Your task to perform on an android device: turn off data saver in the chrome app Image 0: 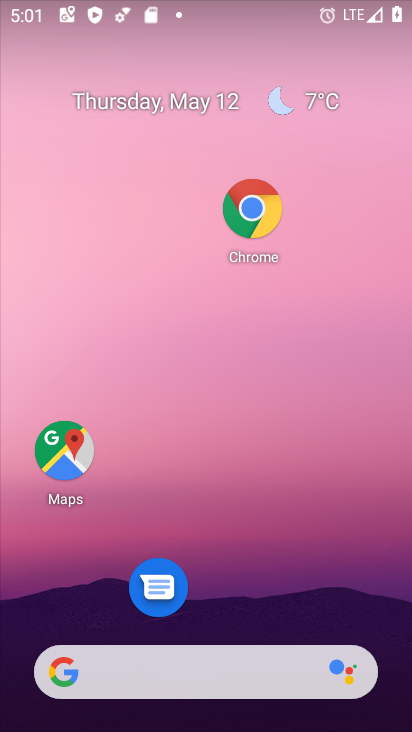
Step 0: click (278, 7)
Your task to perform on an android device: turn off data saver in the chrome app Image 1: 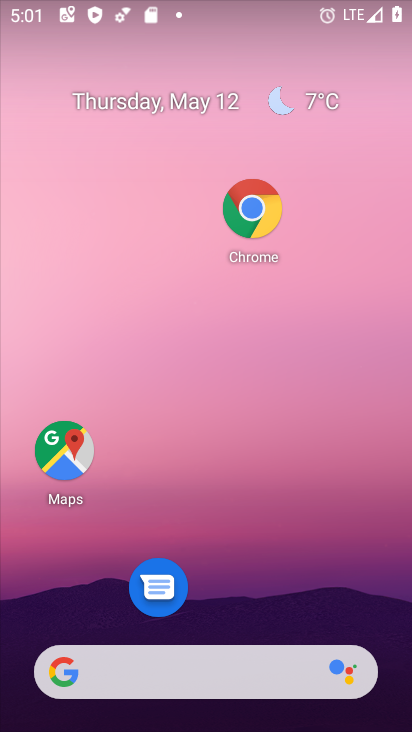
Step 1: click (258, 248)
Your task to perform on an android device: turn off data saver in the chrome app Image 2: 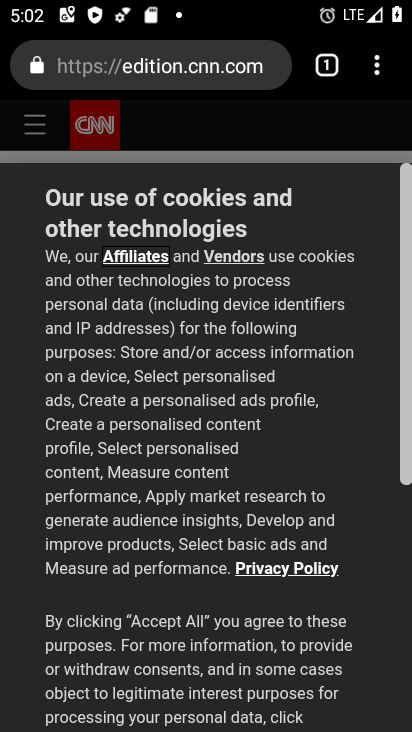
Step 2: click (380, 74)
Your task to perform on an android device: turn off data saver in the chrome app Image 3: 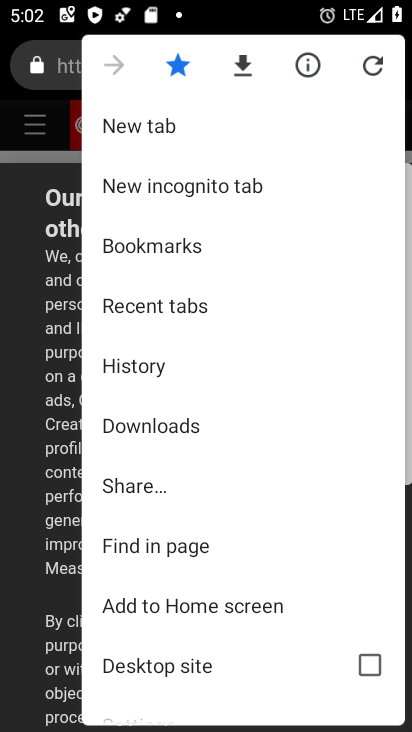
Step 3: drag from (168, 571) to (182, 404)
Your task to perform on an android device: turn off data saver in the chrome app Image 4: 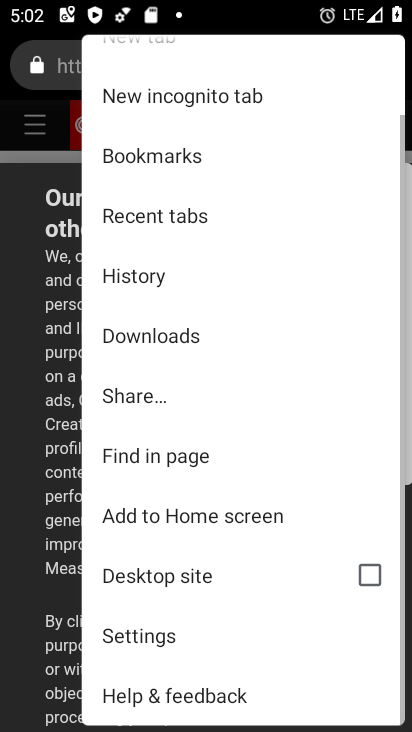
Step 4: drag from (231, 622) to (230, 318)
Your task to perform on an android device: turn off data saver in the chrome app Image 5: 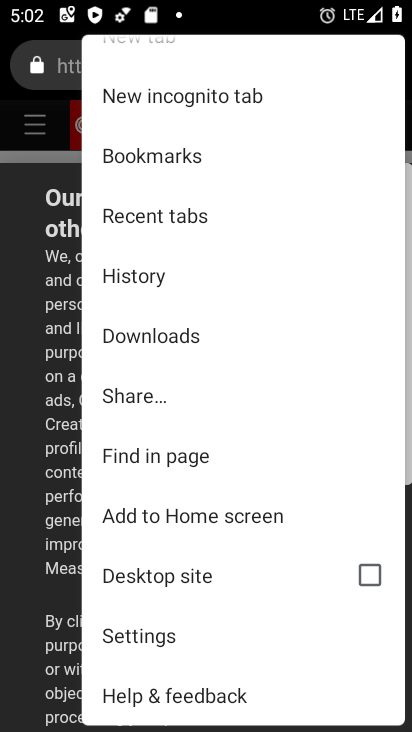
Step 5: click (138, 638)
Your task to perform on an android device: turn off data saver in the chrome app Image 6: 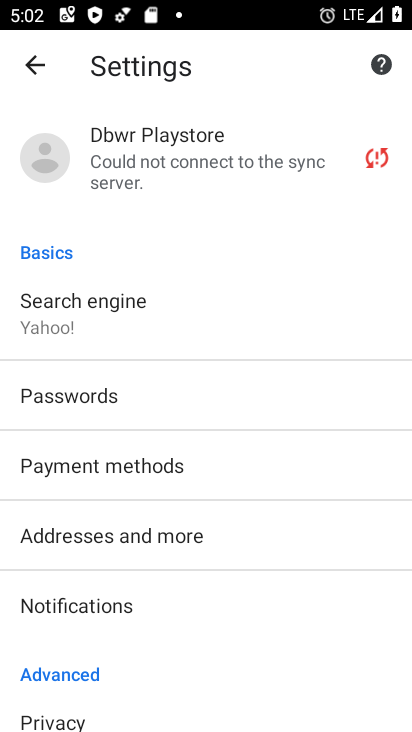
Step 6: drag from (138, 638) to (220, 276)
Your task to perform on an android device: turn off data saver in the chrome app Image 7: 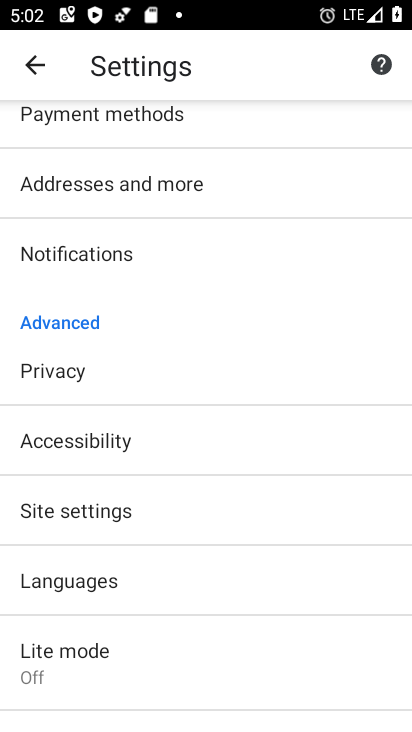
Step 7: click (78, 661)
Your task to perform on an android device: turn off data saver in the chrome app Image 8: 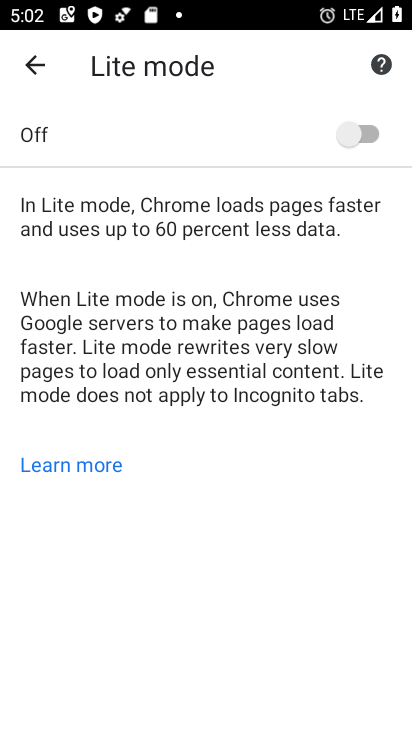
Step 8: task complete